Your task to perform on an android device: turn notification dots on Image 0: 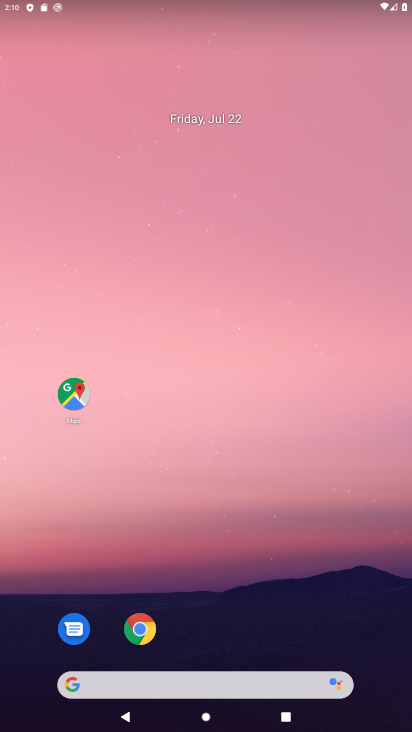
Step 0: press home button
Your task to perform on an android device: turn notification dots on Image 1: 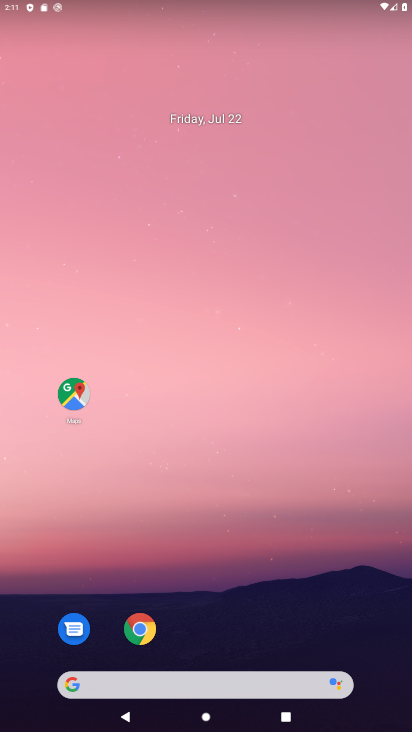
Step 1: drag from (190, 295) to (186, 176)
Your task to perform on an android device: turn notification dots on Image 2: 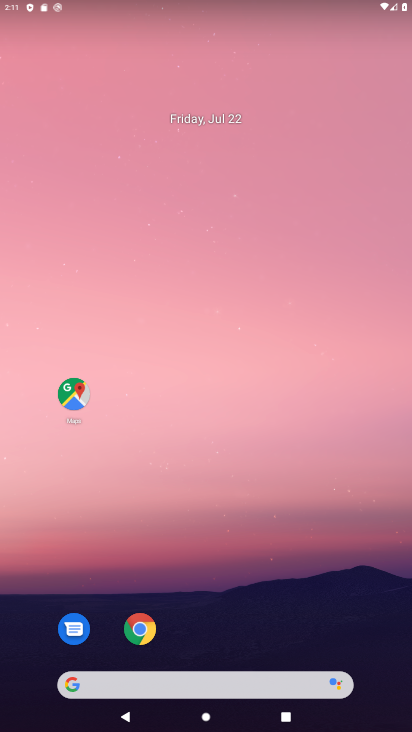
Step 2: drag from (226, 545) to (115, 96)
Your task to perform on an android device: turn notification dots on Image 3: 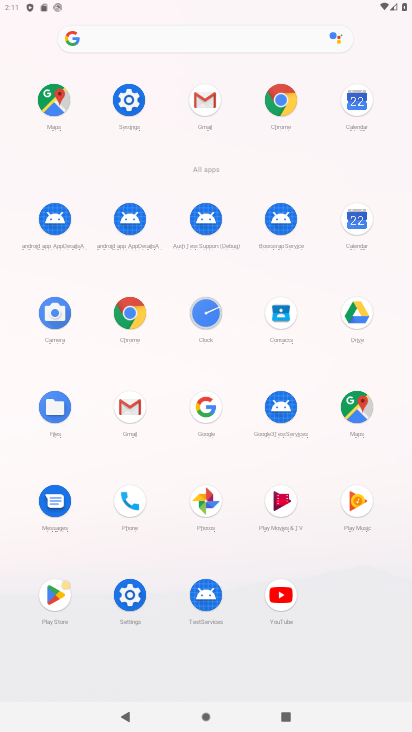
Step 3: click (128, 106)
Your task to perform on an android device: turn notification dots on Image 4: 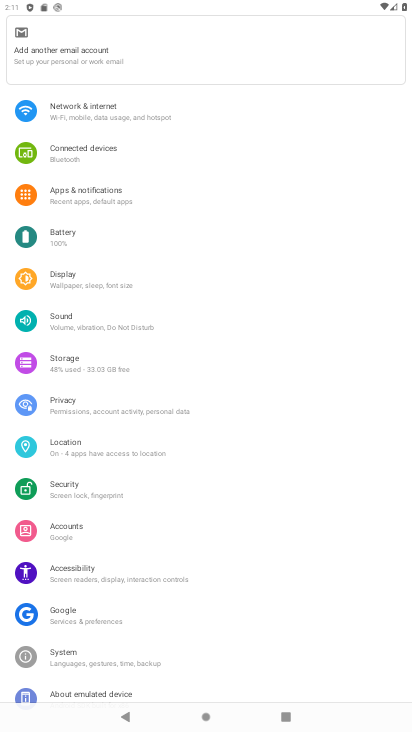
Step 4: click (83, 197)
Your task to perform on an android device: turn notification dots on Image 5: 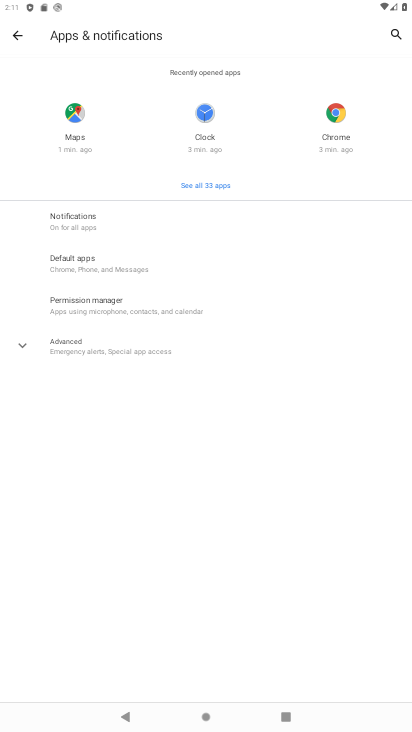
Step 5: click (84, 220)
Your task to perform on an android device: turn notification dots on Image 6: 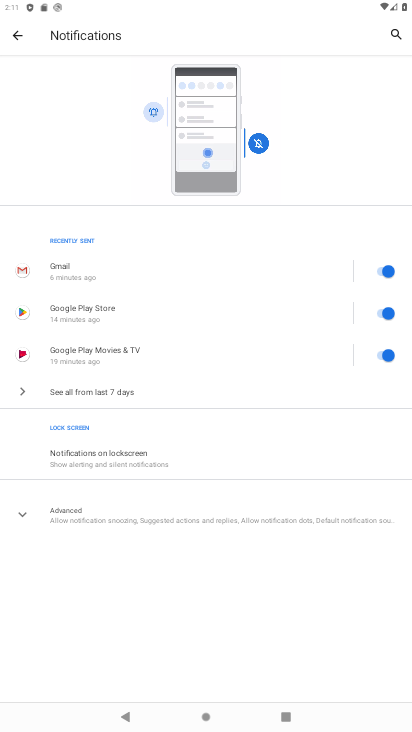
Step 6: click (70, 524)
Your task to perform on an android device: turn notification dots on Image 7: 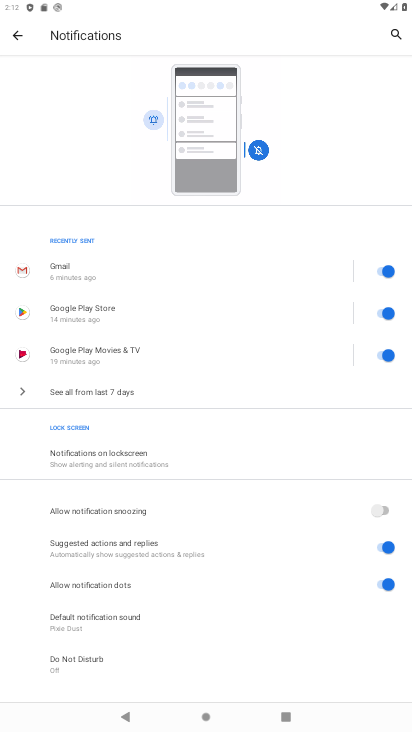
Step 7: task complete